Your task to perform on an android device: stop showing notifications on the lock screen Image 0: 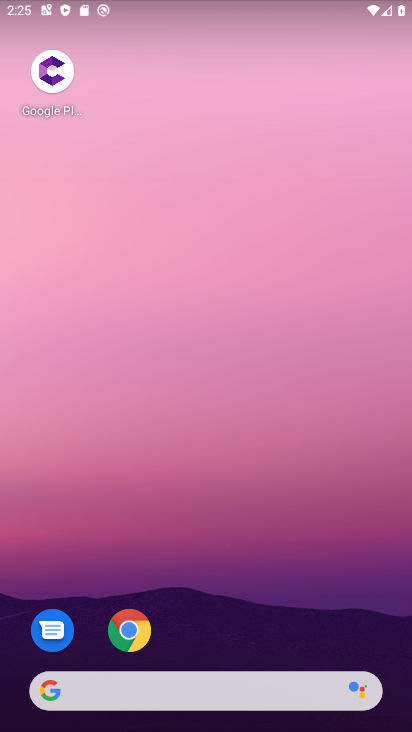
Step 0: click (228, 52)
Your task to perform on an android device: stop showing notifications on the lock screen Image 1: 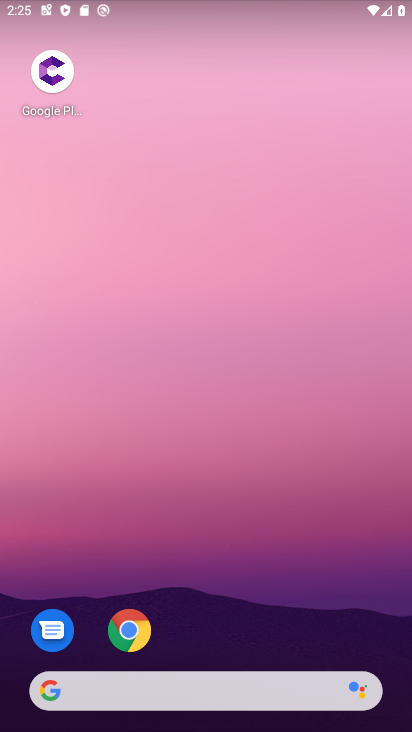
Step 1: drag from (234, 632) to (196, 11)
Your task to perform on an android device: stop showing notifications on the lock screen Image 2: 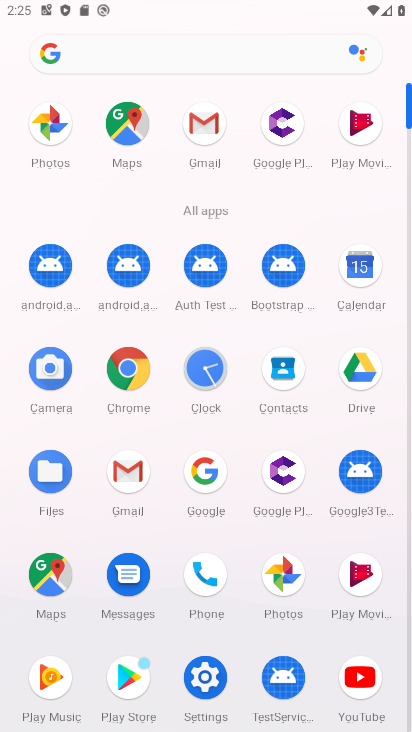
Step 2: click (200, 684)
Your task to perform on an android device: stop showing notifications on the lock screen Image 3: 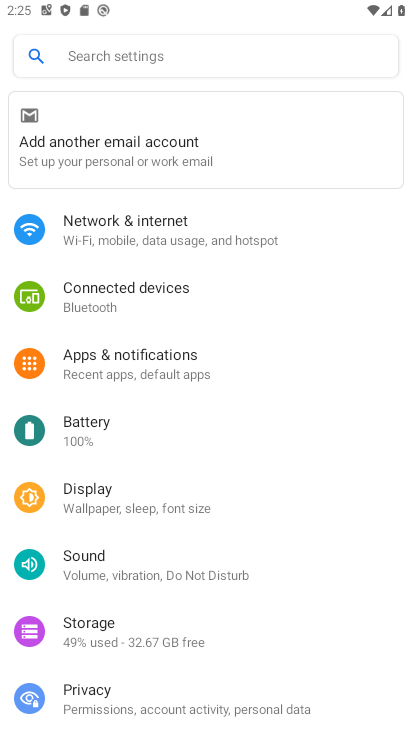
Step 3: click (162, 367)
Your task to perform on an android device: stop showing notifications on the lock screen Image 4: 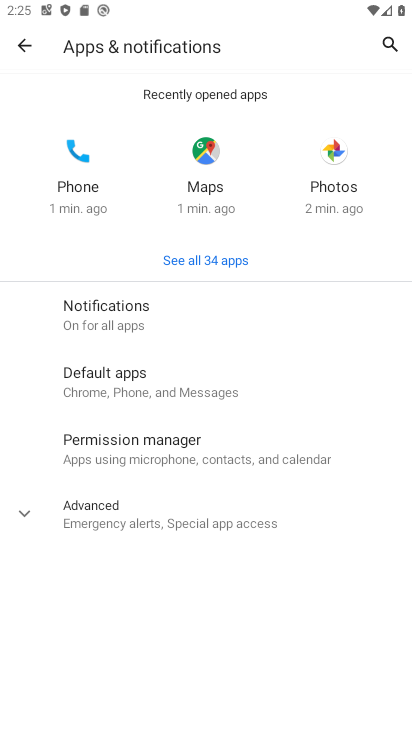
Step 4: click (99, 330)
Your task to perform on an android device: stop showing notifications on the lock screen Image 5: 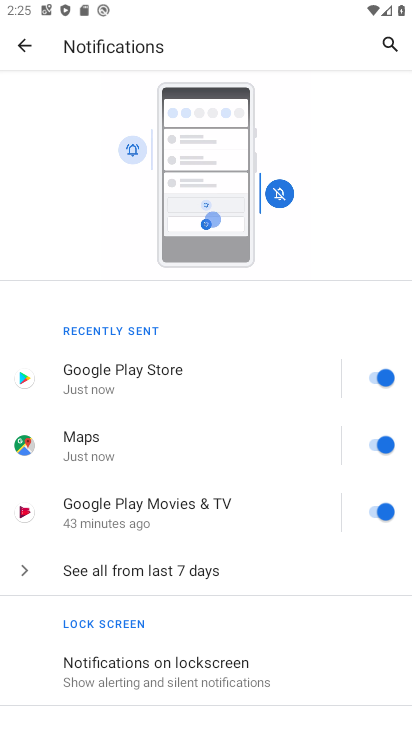
Step 5: drag from (187, 596) to (205, 407)
Your task to perform on an android device: stop showing notifications on the lock screen Image 6: 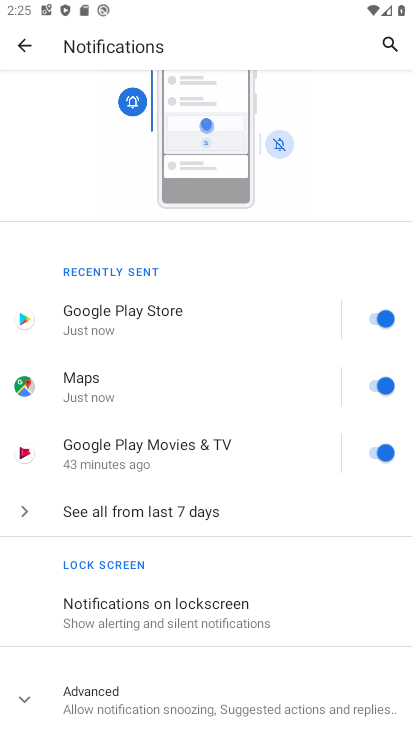
Step 6: click (202, 618)
Your task to perform on an android device: stop showing notifications on the lock screen Image 7: 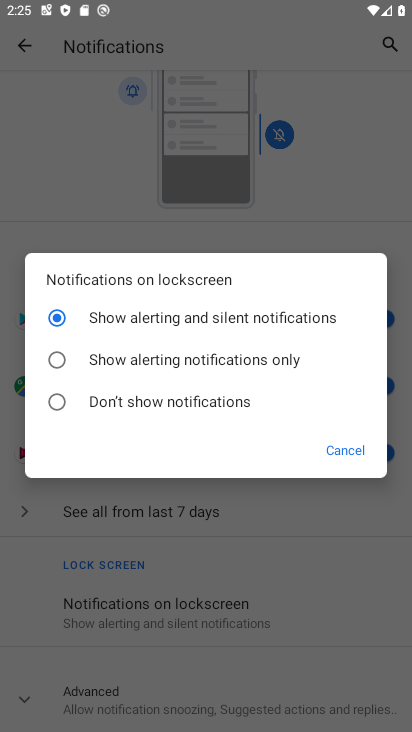
Step 7: click (126, 410)
Your task to perform on an android device: stop showing notifications on the lock screen Image 8: 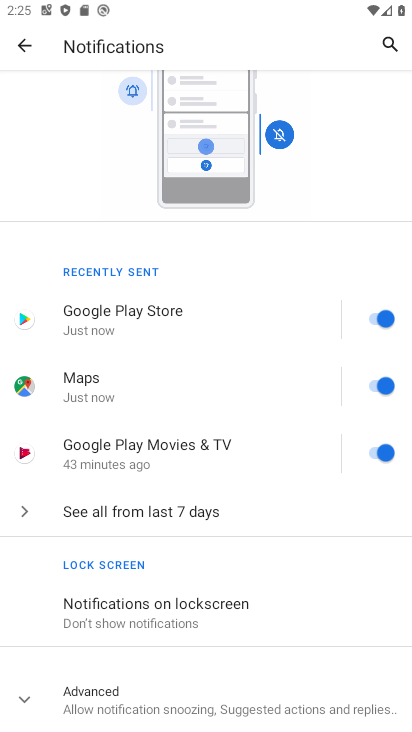
Step 8: task complete